Your task to perform on an android device: turn on showing notifications on the lock screen Image 0: 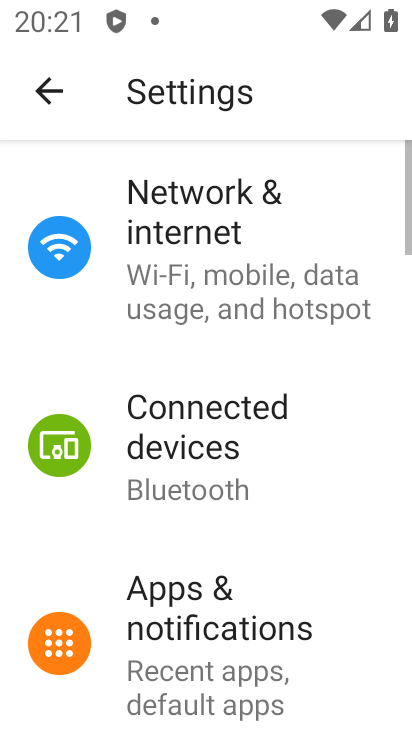
Step 0: press home button
Your task to perform on an android device: turn on showing notifications on the lock screen Image 1: 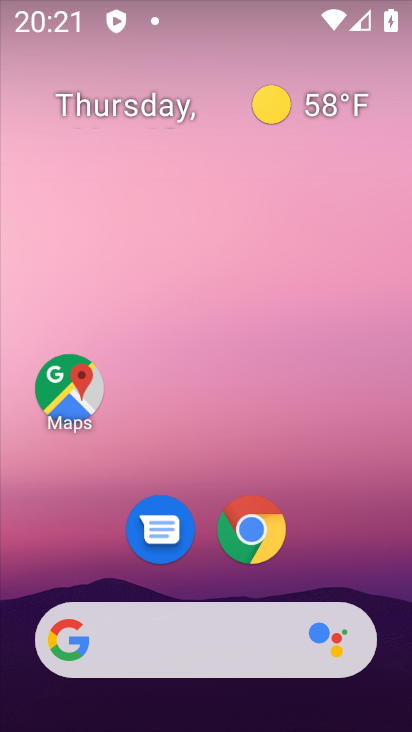
Step 1: drag from (221, 576) to (258, 52)
Your task to perform on an android device: turn on showing notifications on the lock screen Image 2: 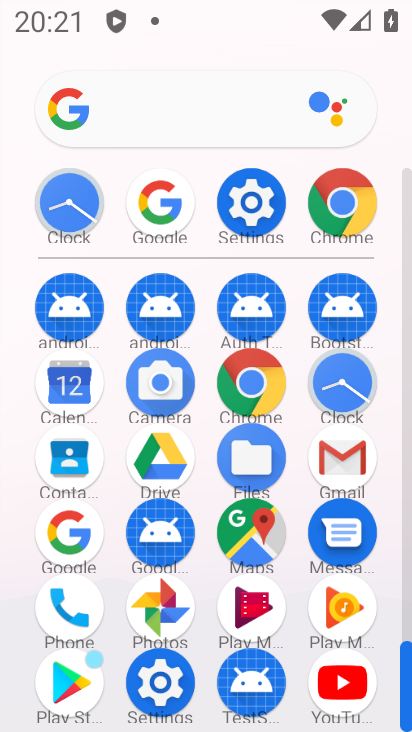
Step 2: click (247, 211)
Your task to perform on an android device: turn on showing notifications on the lock screen Image 3: 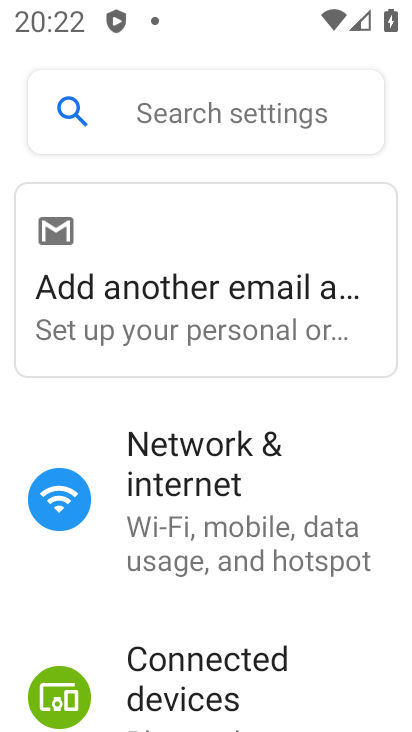
Step 3: drag from (297, 611) to (268, 118)
Your task to perform on an android device: turn on showing notifications on the lock screen Image 4: 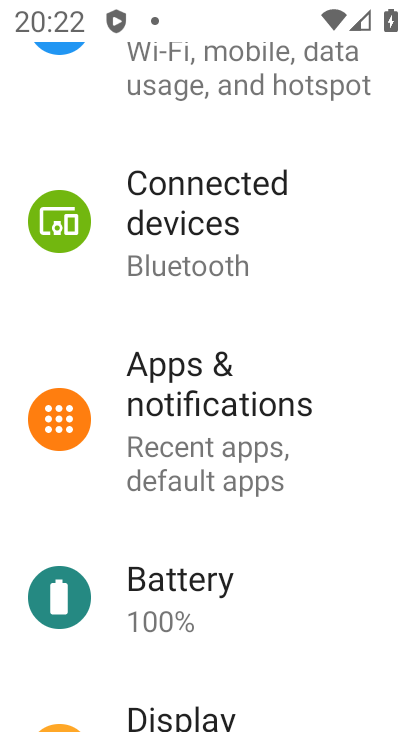
Step 4: click (248, 430)
Your task to perform on an android device: turn on showing notifications on the lock screen Image 5: 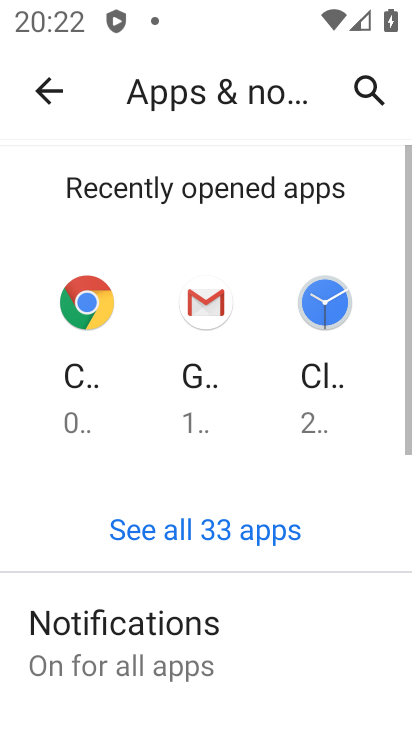
Step 5: click (134, 644)
Your task to perform on an android device: turn on showing notifications on the lock screen Image 6: 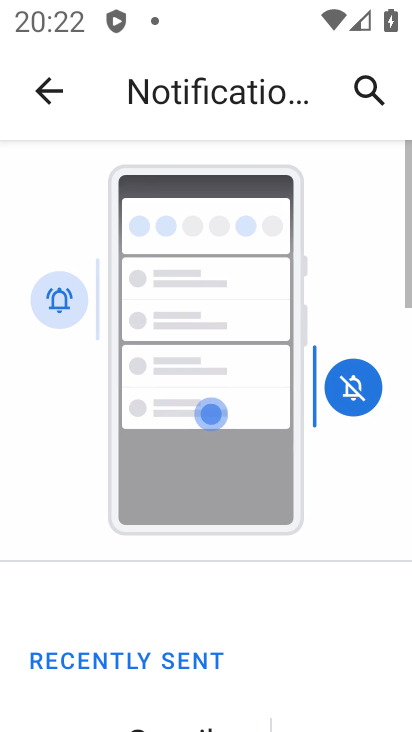
Step 6: drag from (234, 632) to (246, 186)
Your task to perform on an android device: turn on showing notifications on the lock screen Image 7: 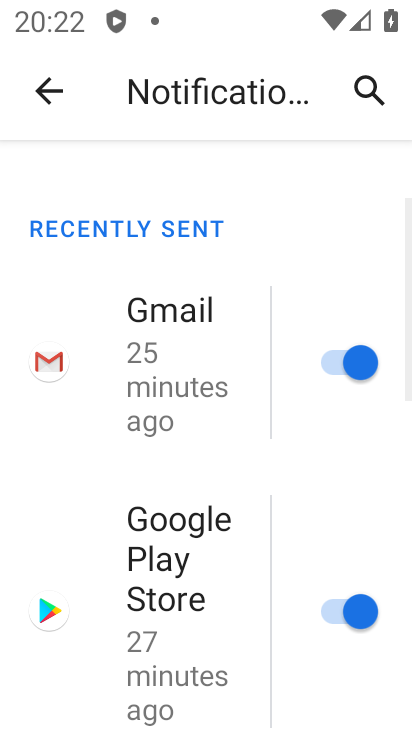
Step 7: drag from (246, 669) to (276, 68)
Your task to perform on an android device: turn on showing notifications on the lock screen Image 8: 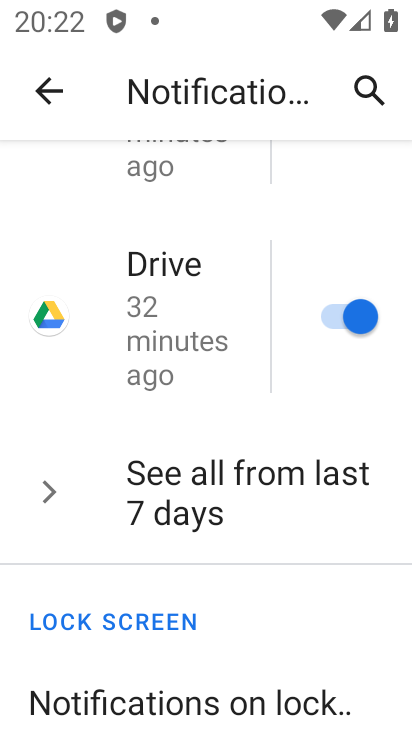
Step 8: click (191, 707)
Your task to perform on an android device: turn on showing notifications on the lock screen Image 9: 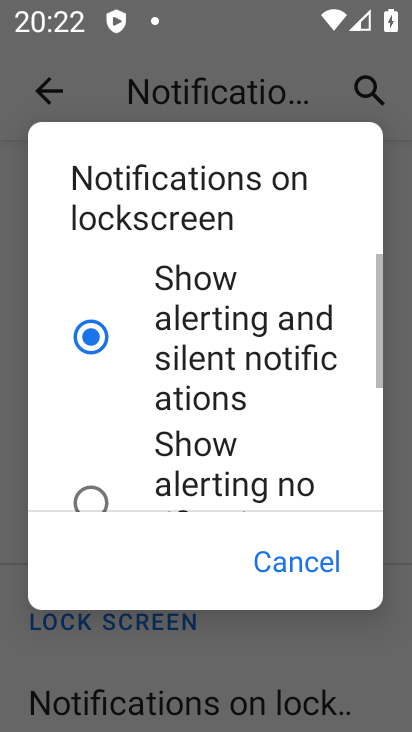
Step 9: task complete